Your task to perform on an android device: Do I have any events today? Image 0: 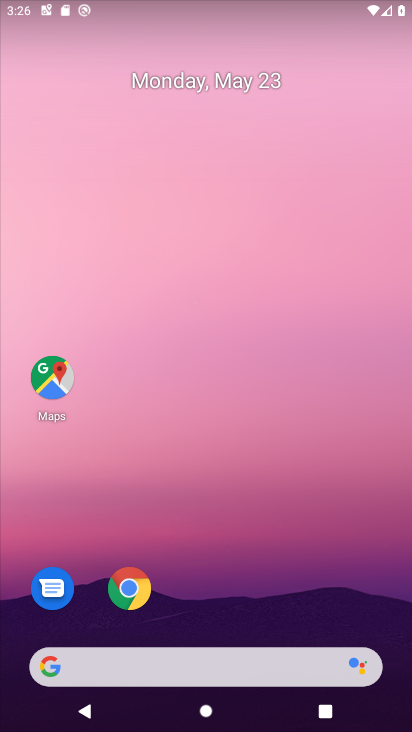
Step 0: click (411, 16)
Your task to perform on an android device: Do I have any events today? Image 1: 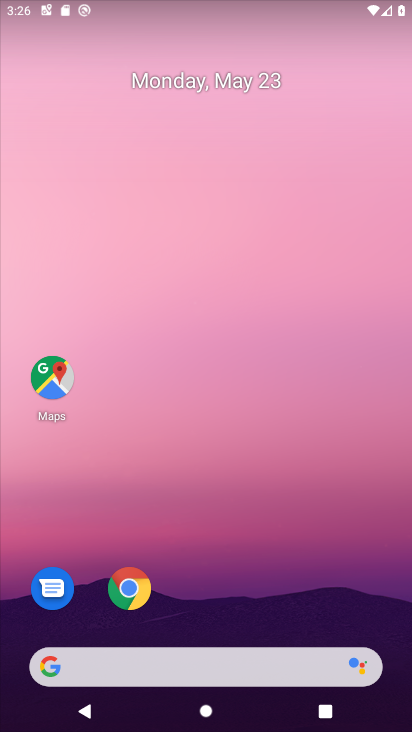
Step 1: drag from (176, 639) to (277, 16)
Your task to perform on an android device: Do I have any events today? Image 2: 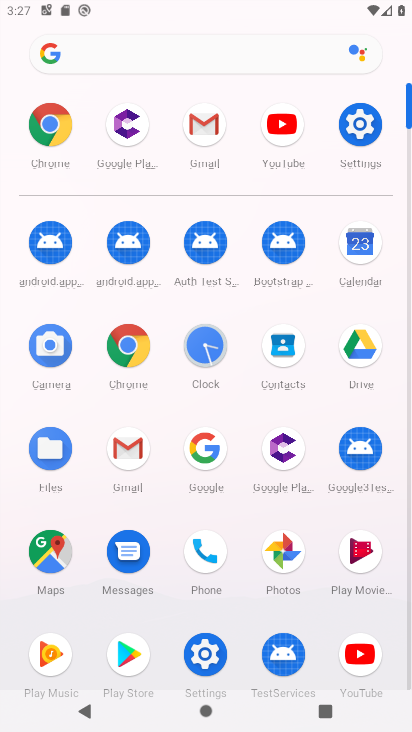
Step 2: click (347, 234)
Your task to perform on an android device: Do I have any events today? Image 3: 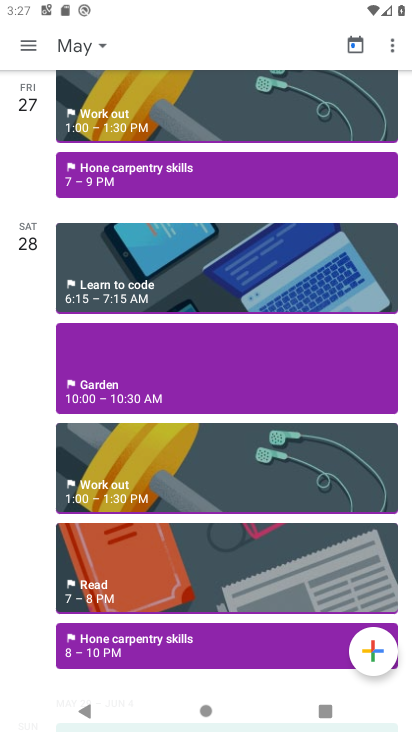
Step 3: click (100, 55)
Your task to perform on an android device: Do I have any events today? Image 4: 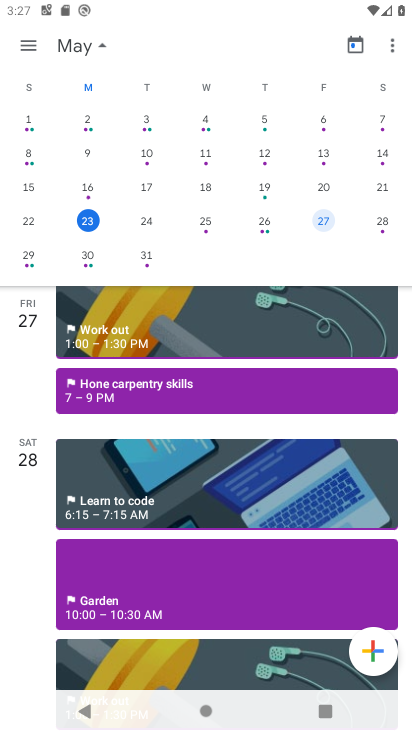
Step 4: click (261, 219)
Your task to perform on an android device: Do I have any events today? Image 5: 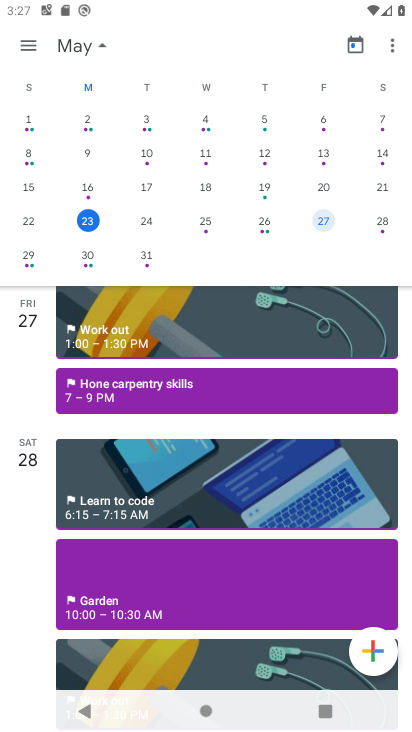
Step 5: click (261, 229)
Your task to perform on an android device: Do I have any events today? Image 6: 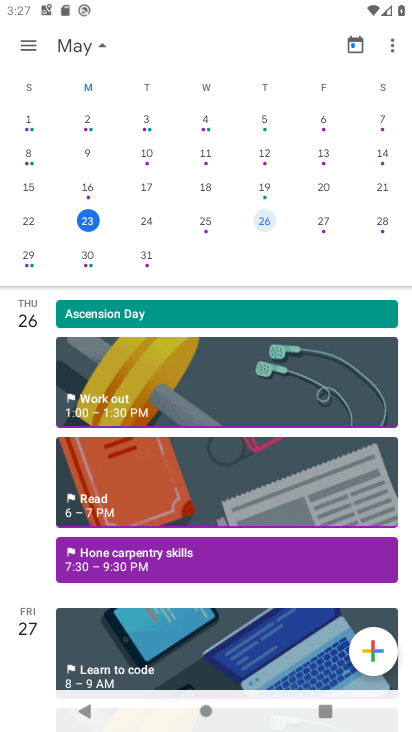
Step 6: click (76, 216)
Your task to perform on an android device: Do I have any events today? Image 7: 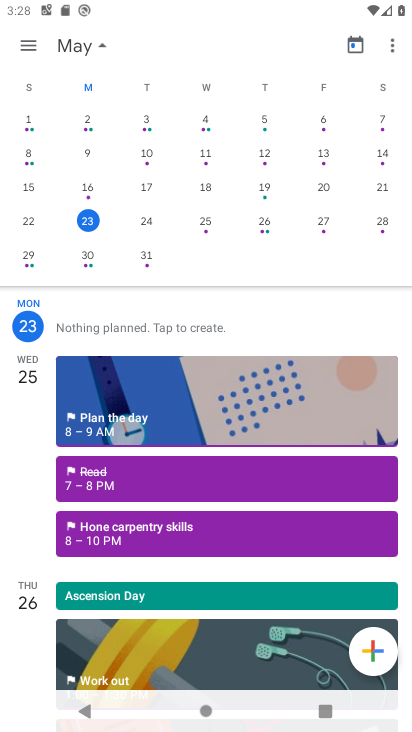
Step 7: task complete